Your task to perform on an android device: Open the web browser Image 0: 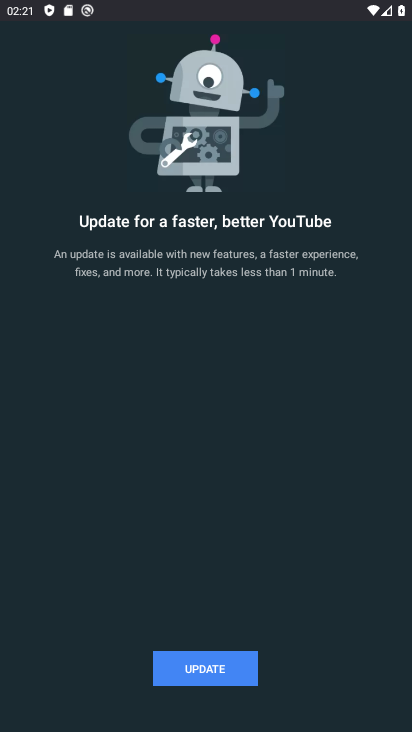
Step 0: press home button
Your task to perform on an android device: Open the web browser Image 1: 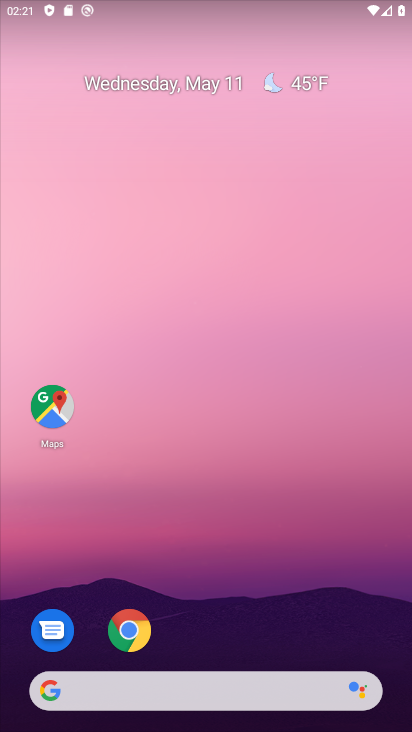
Step 1: click (133, 629)
Your task to perform on an android device: Open the web browser Image 2: 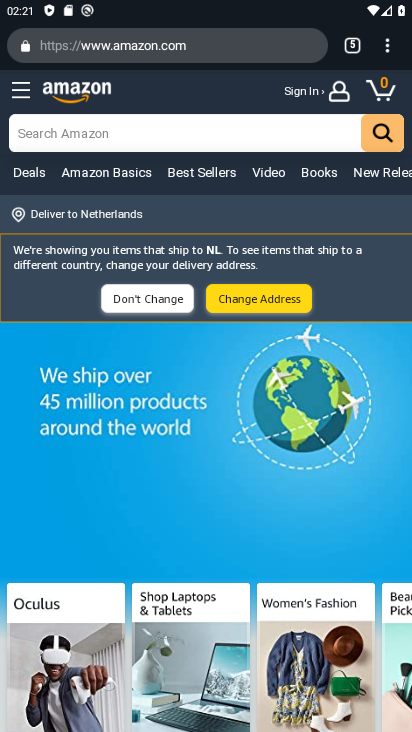
Step 2: task complete